Your task to perform on an android device: add a label to a message in the gmail app Image 0: 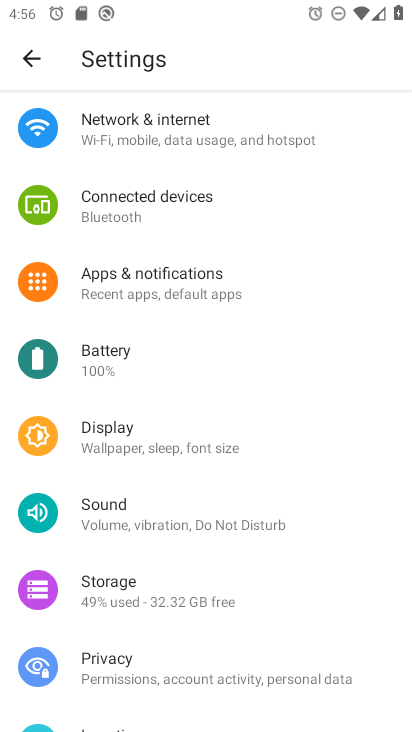
Step 0: press back button
Your task to perform on an android device: add a label to a message in the gmail app Image 1: 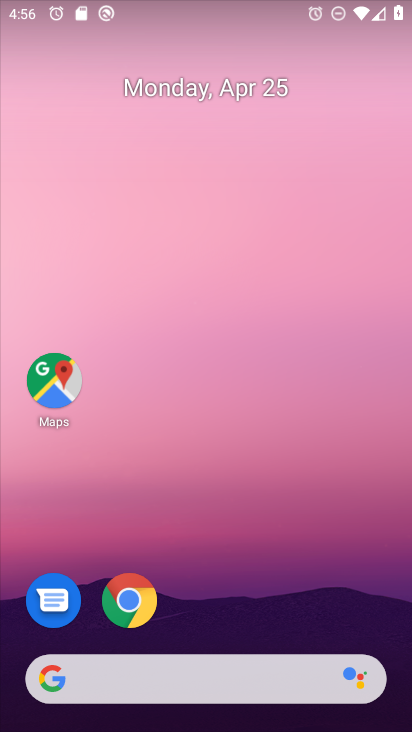
Step 1: drag from (278, 592) to (222, 59)
Your task to perform on an android device: add a label to a message in the gmail app Image 2: 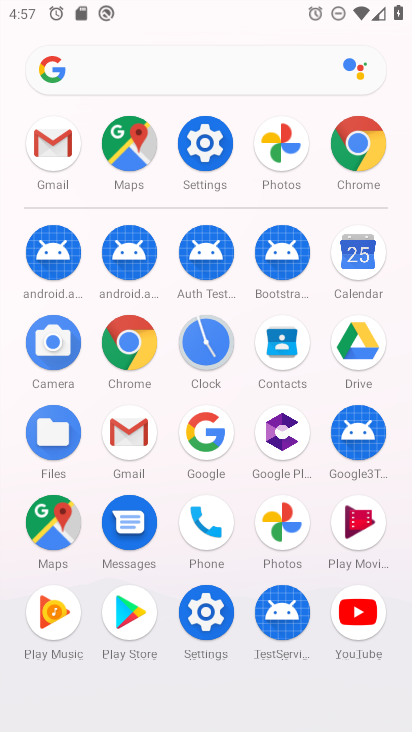
Step 2: drag from (18, 435) to (4, 244)
Your task to perform on an android device: add a label to a message in the gmail app Image 3: 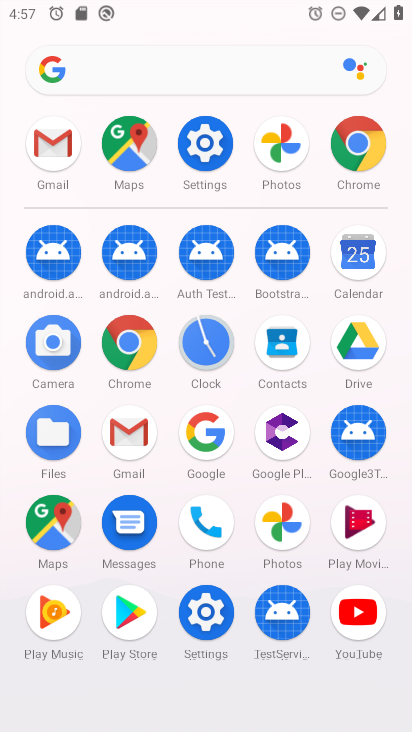
Step 3: click (132, 427)
Your task to perform on an android device: add a label to a message in the gmail app Image 4: 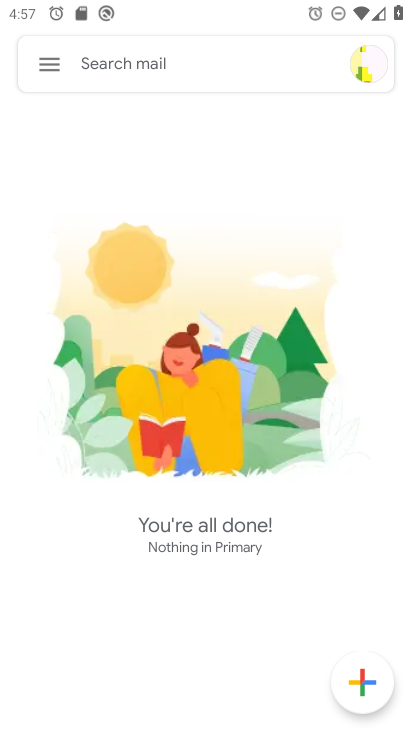
Step 4: click (58, 71)
Your task to perform on an android device: add a label to a message in the gmail app Image 5: 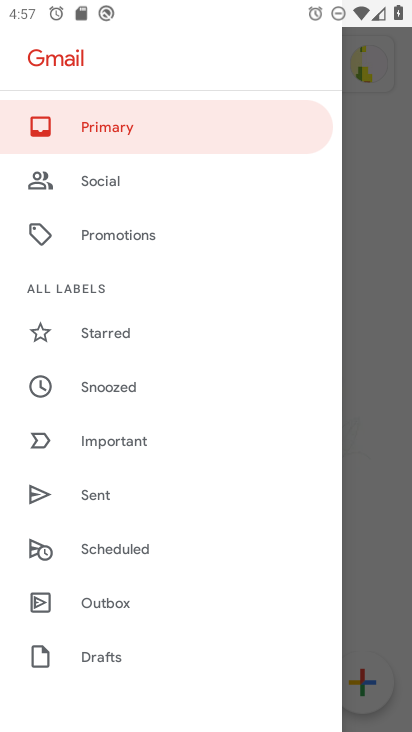
Step 5: drag from (208, 647) to (212, 210)
Your task to perform on an android device: add a label to a message in the gmail app Image 6: 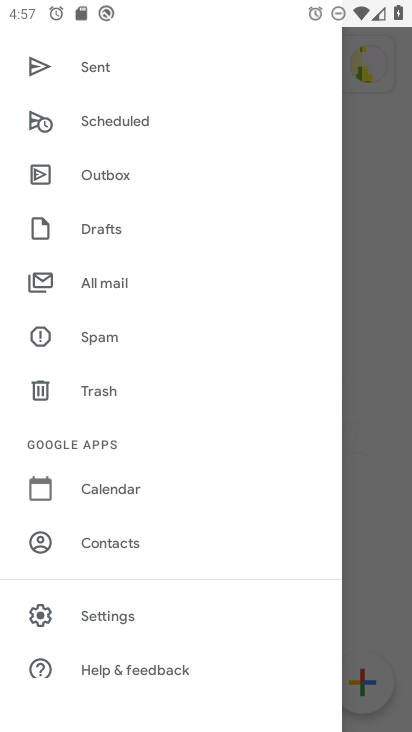
Step 6: drag from (182, 168) to (167, 606)
Your task to perform on an android device: add a label to a message in the gmail app Image 7: 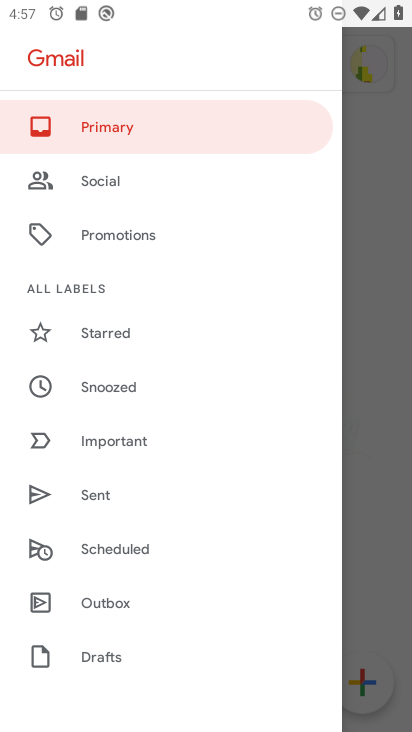
Step 7: drag from (224, 205) to (197, 611)
Your task to perform on an android device: add a label to a message in the gmail app Image 8: 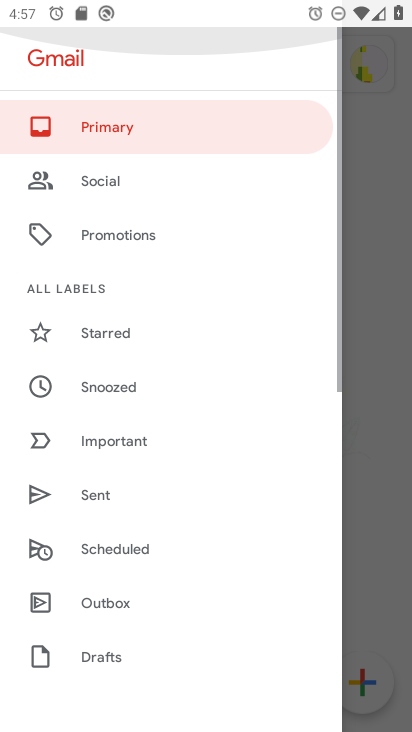
Step 8: drag from (197, 633) to (213, 208)
Your task to perform on an android device: add a label to a message in the gmail app Image 9: 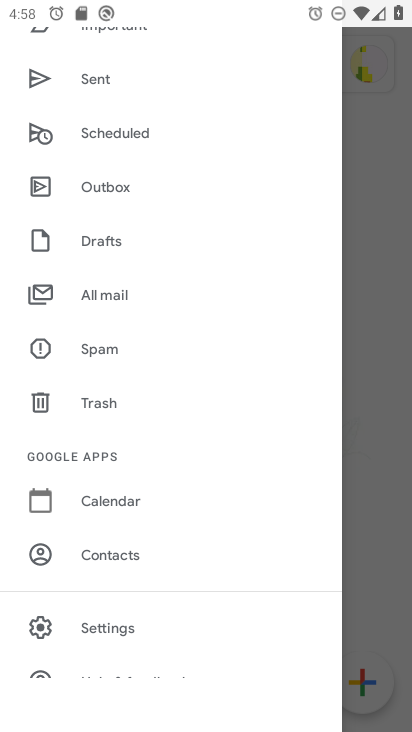
Step 9: drag from (214, 447) to (236, 207)
Your task to perform on an android device: add a label to a message in the gmail app Image 10: 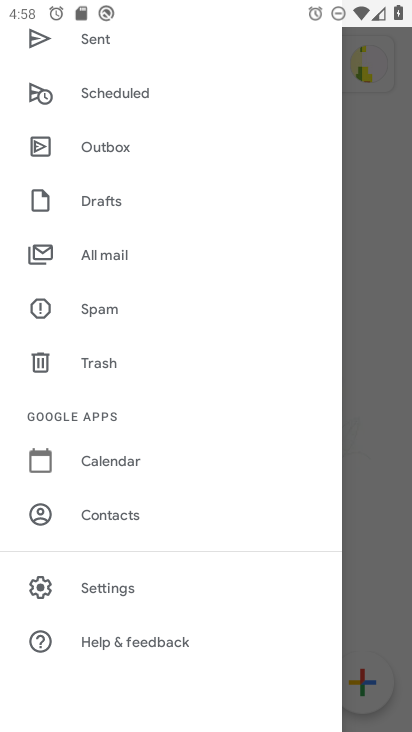
Step 10: click (122, 246)
Your task to perform on an android device: add a label to a message in the gmail app Image 11: 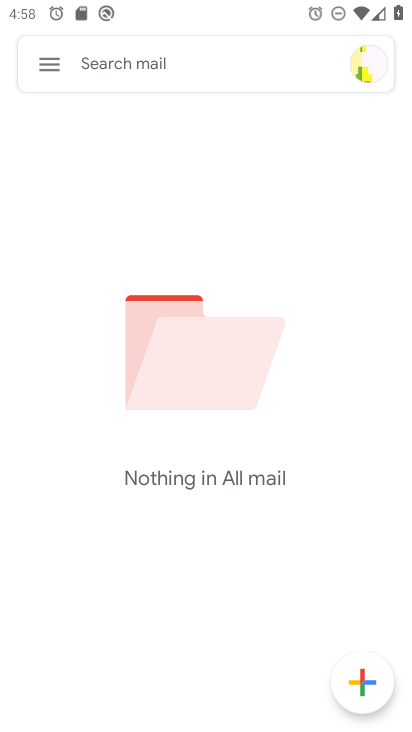
Step 11: task complete